Your task to perform on an android device: Open Google Chrome and click the shortcut for Amazon.com Image 0: 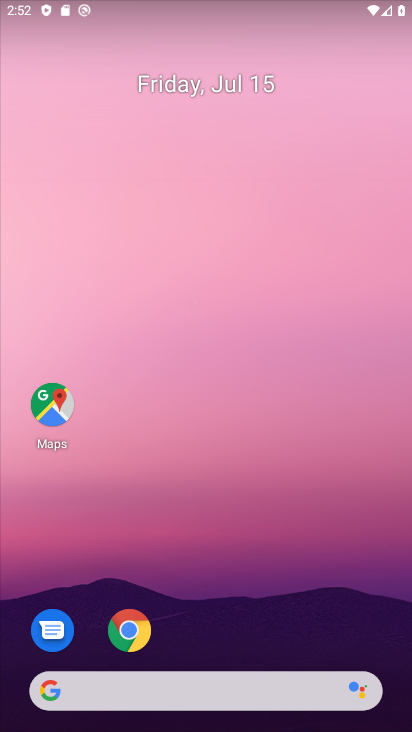
Step 0: click (121, 624)
Your task to perform on an android device: Open Google Chrome and click the shortcut for Amazon.com Image 1: 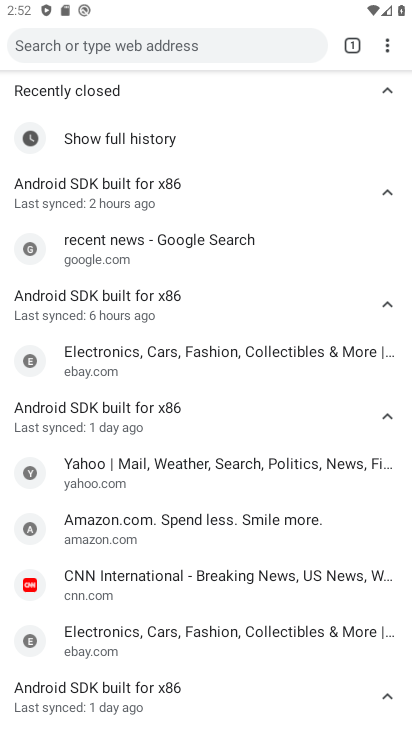
Step 1: click (391, 35)
Your task to perform on an android device: Open Google Chrome and click the shortcut for Amazon.com Image 2: 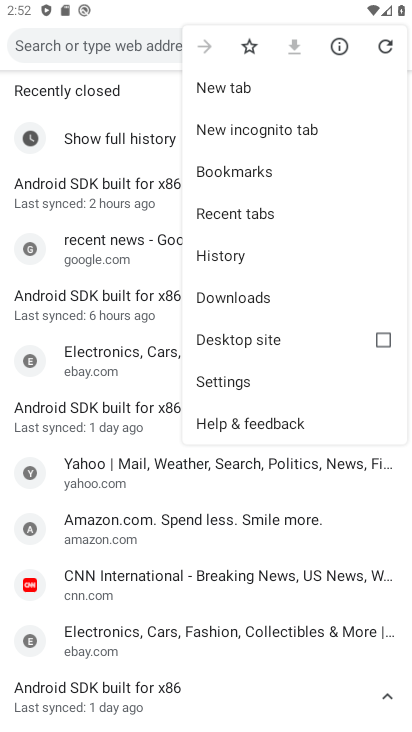
Step 2: click (260, 85)
Your task to perform on an android device: Open Google Chrome and click the shortcut for Amazon.com Image 3: 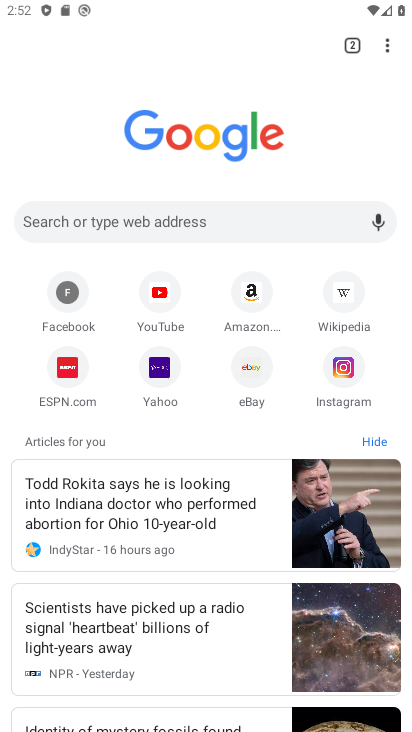
Step 3: click (263, 288)
Your task to perform on an android device: Open Google Chrome and click the shortcut for Amazon.com Image 4: 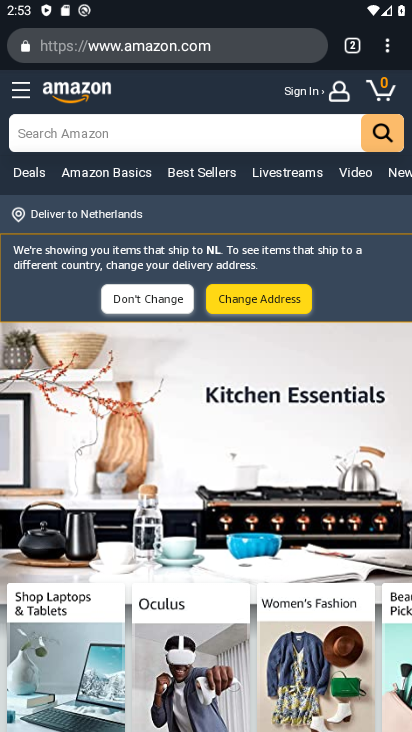
Step 4: task complete